Your task to perform on an android device: turn off improve location accuracy Image 0: 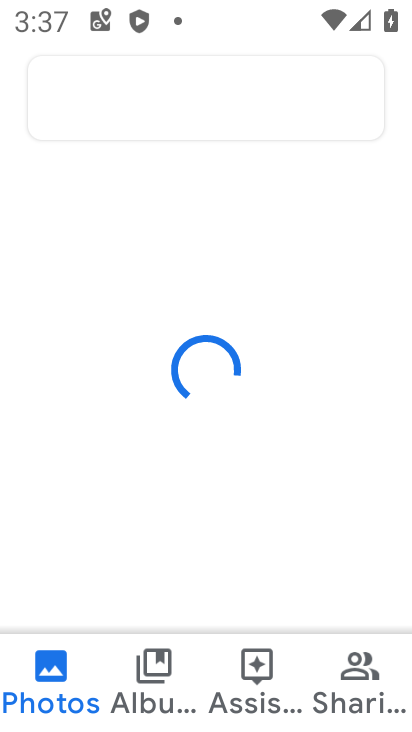
Step 0: press home button
Your task to perform on an android device: turn off improve location accuracy Image 1: 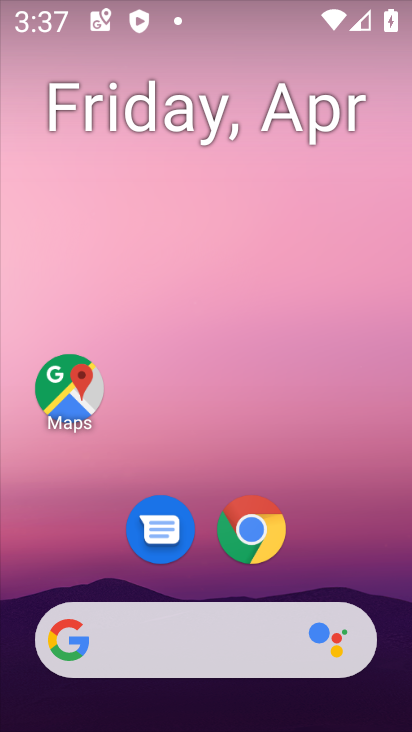
Step 1: drag from (320, 566) to (334, 43)
Your task to perform on an android device: turn off improve location accuracy Image 2: 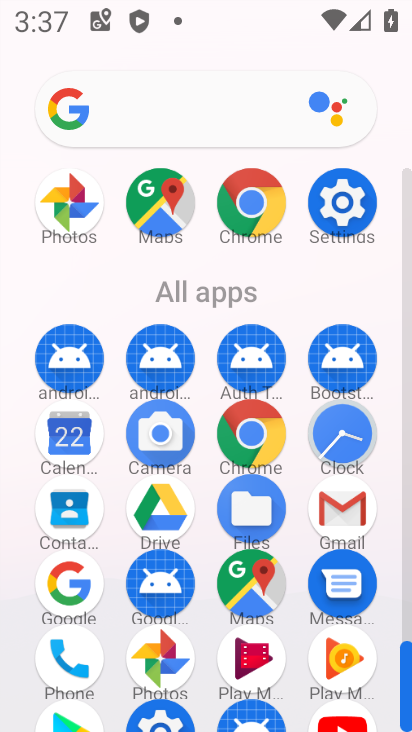
Step 2: click (342, 193)
Your task to perform on an android device: turn off improve location accuracy Image 3: 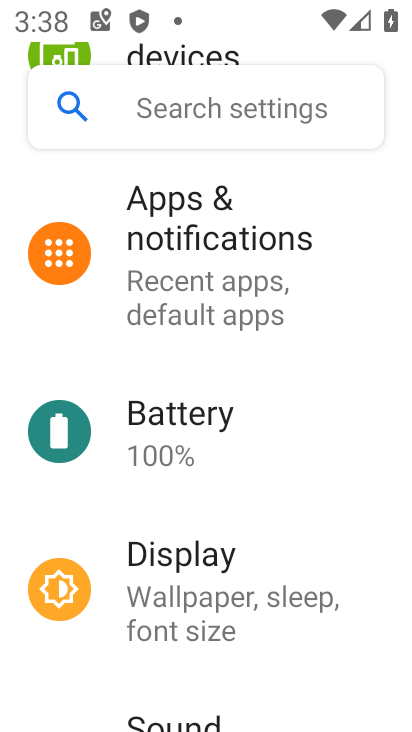
Step 3: drag from (227, 545) to (232, 441)
Your task to perform on an android device: turn off improve location accuracy Image 4: 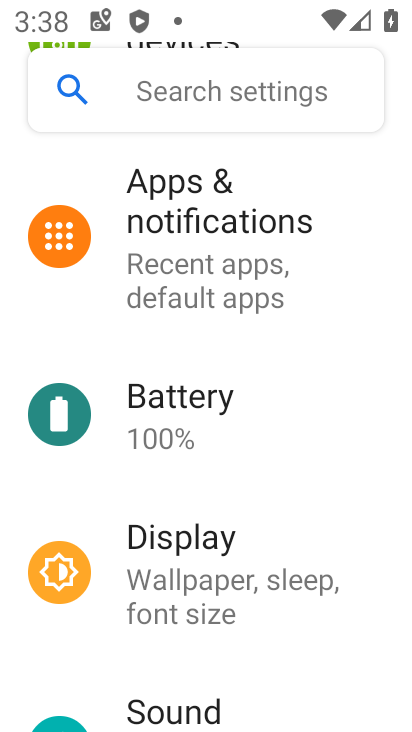
Step 4: drag from (230, 592) to (245, 295)
Your task to perform on an android device: turn off improve location accuracy Image 5: 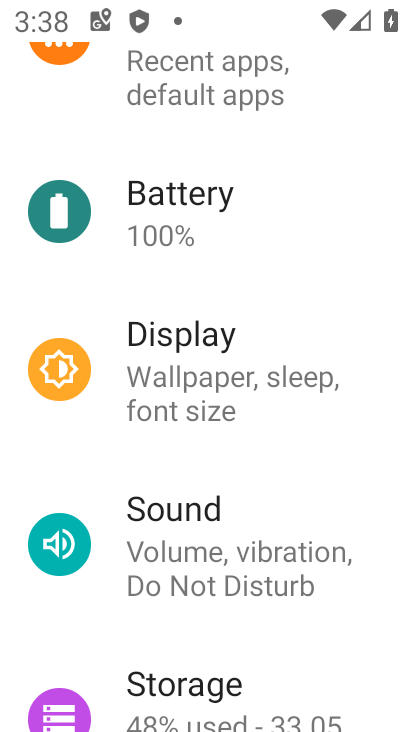
Step 5: drag from (176, 604) to (200, 339)
Your task to perform on an android device: turn off improve location accuracy Image 6: 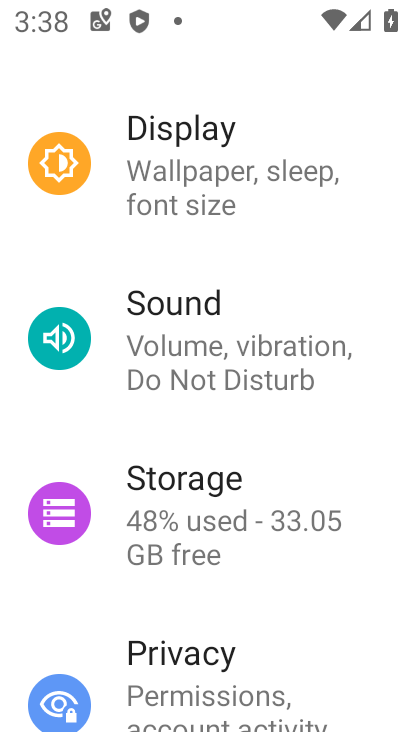
Step 6: drag from (144, 603) to (163, 336)
Your task to perform on an android device: turn off improve location accuracy Image 7: 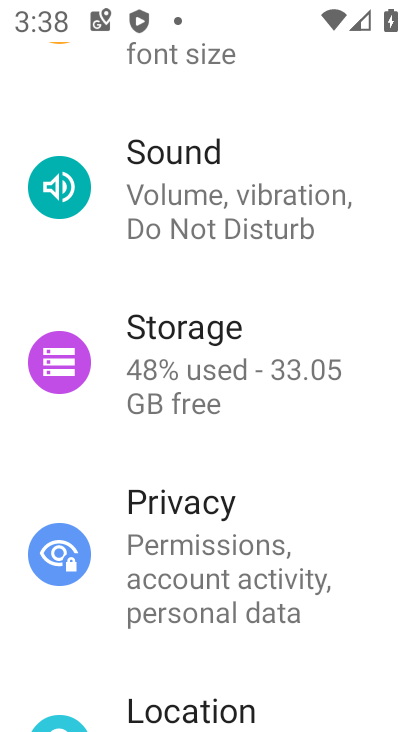
Step 7: drag from (139, 599) to (215, 336)
Your task to perform on an android device: turn off improve location accuracy Image 8: 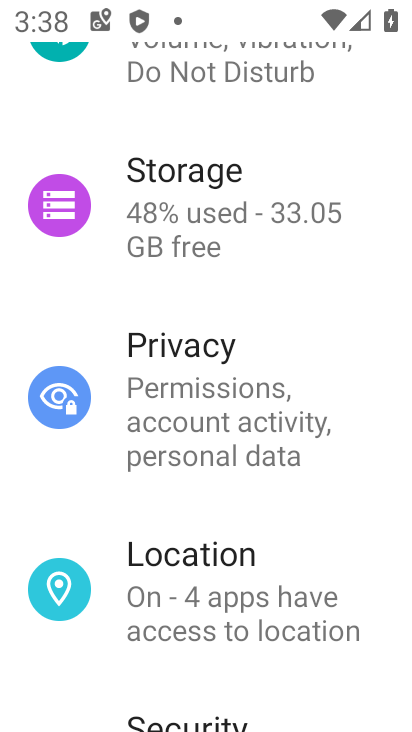
Step 8: click (174, 574)
Your task to perform on an android device: turn off improve location accuracy Image 9: 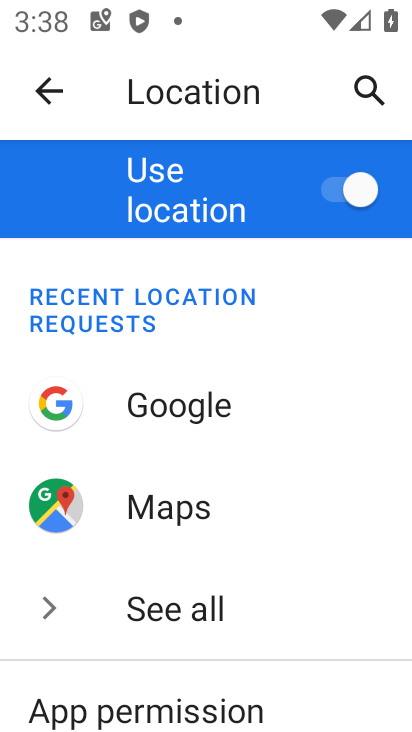
Step 9: drag from (186, 637) to (239, 411)
Your task to perform on an android device: turn off improve location accuracy Image 10: 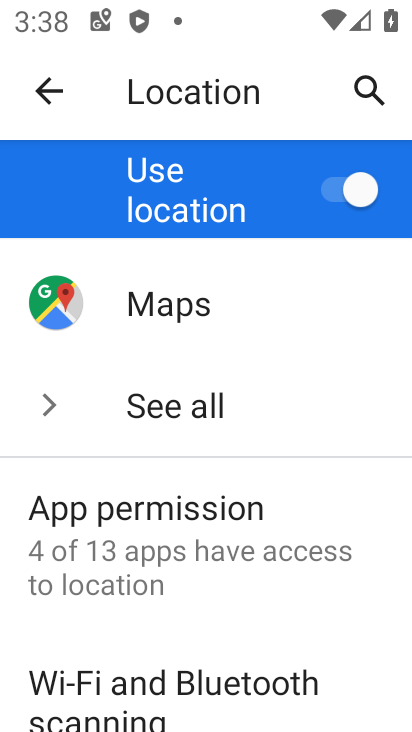
Step 10: drag from (263, 579) to (286, 325)
Your task to perform on an android device: turn off improve location accuracy Image 11: 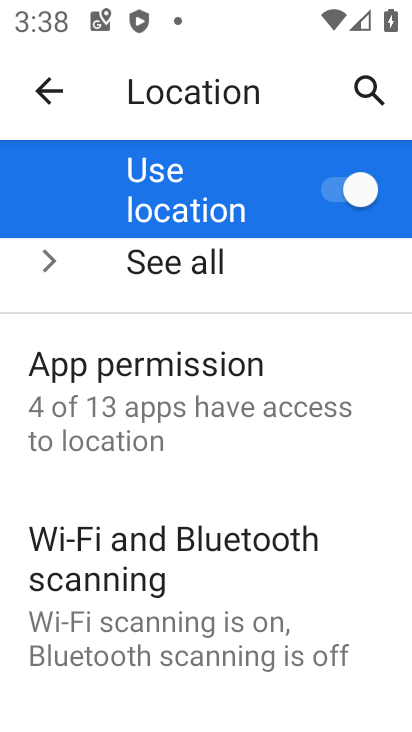
Step 11: drag from (202, 631) to (213, 311)
Your task to perform on an android device: turn off improve location accuracy Image 12: 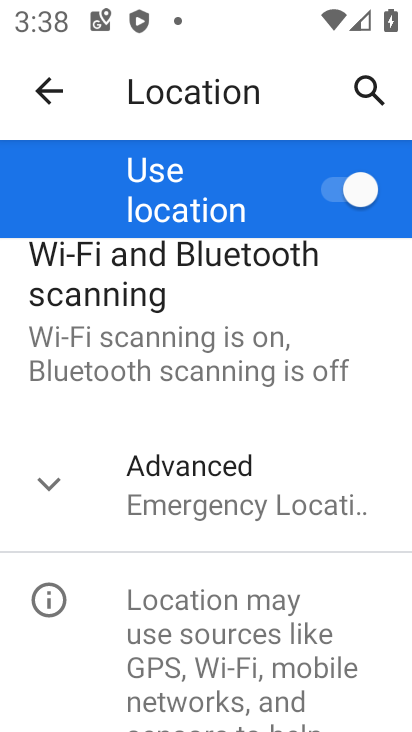
Step 12: click (217, 502)
Your task to perform on an android device: turn off improve location accuracy Image 13: 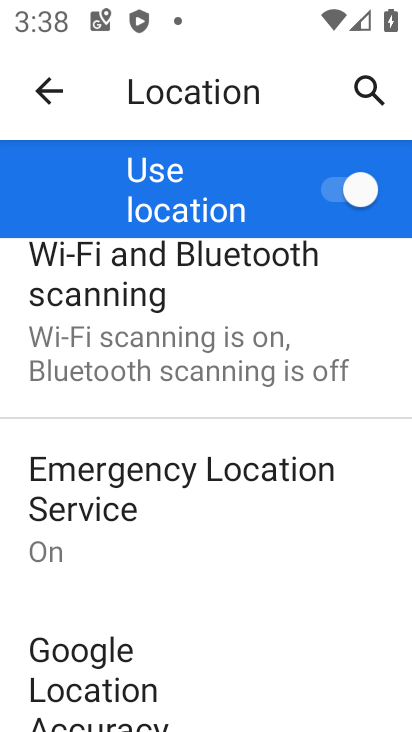
Step 13: drag from (222, 593) to (238, 358)
Your task to perform on an android device: turn off improve location accuracy Image 14: 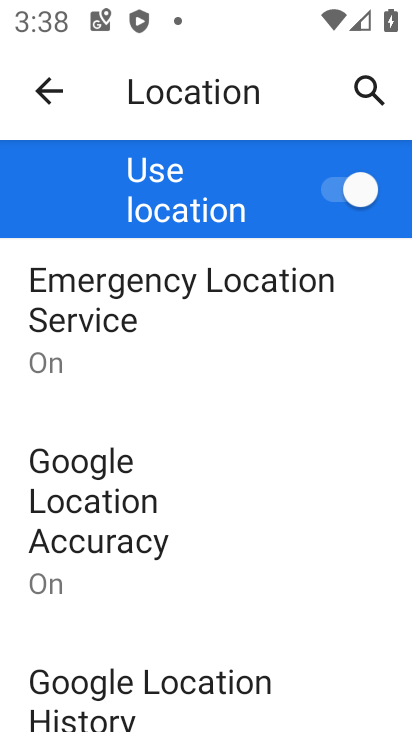
Step 14: click (126, 499)
Your task to perform on an android device: turn off improve location accuracy Image 15: 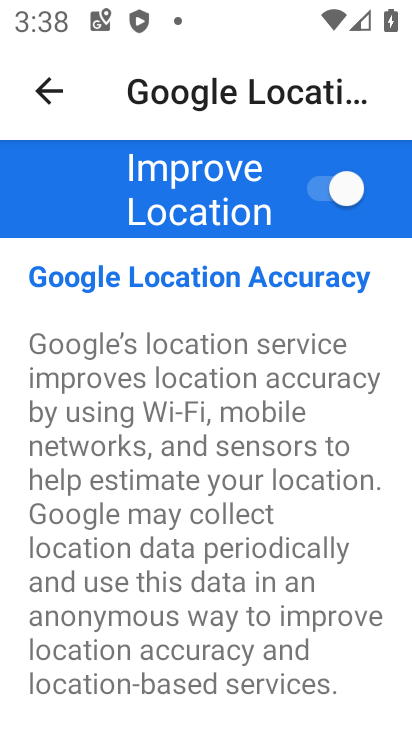
Step 15: click (329, 206)
Your task to perform on an android device: turn off improve location accuracy Image 16: 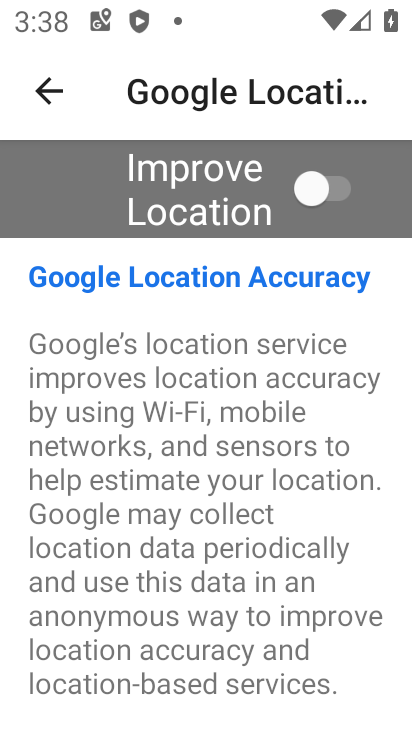
Step 16: task complete